Your task to perform on an android device: turn on the 24-hour format for clock Image 0: 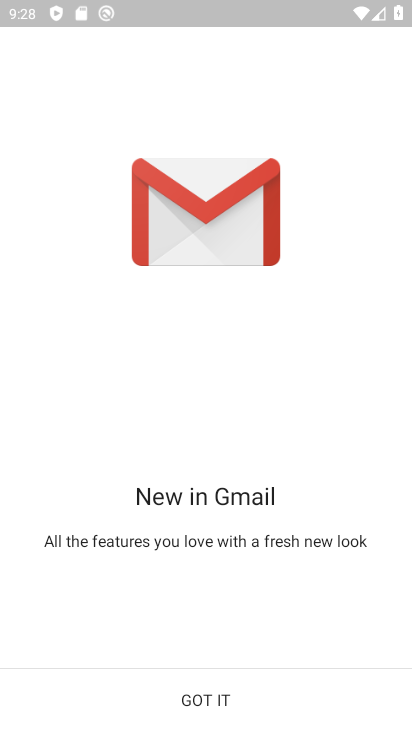
Step 0: press home button
Your task to perform on an android device: turn on the 24-hour format for clock Image 1: 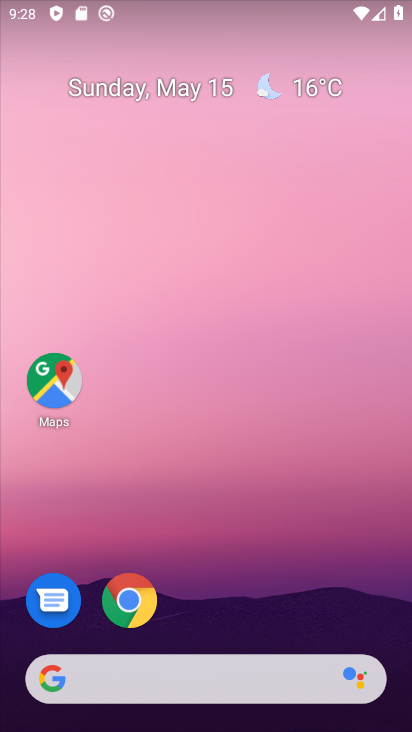
Step 1: drag from (200, 620) to (118, 291)
Your task to perform on an android device: turn on the 24-hour format for clock Image 2: 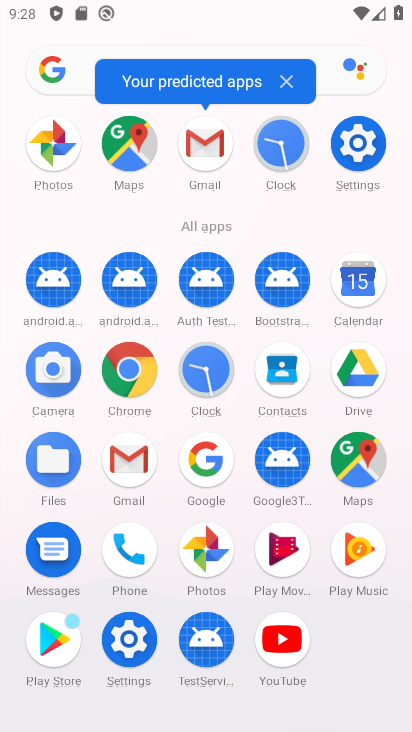
Step 2: click (285, 141)
Your task to perform on an android device: turn on the 24-hour format for clock Image 3: 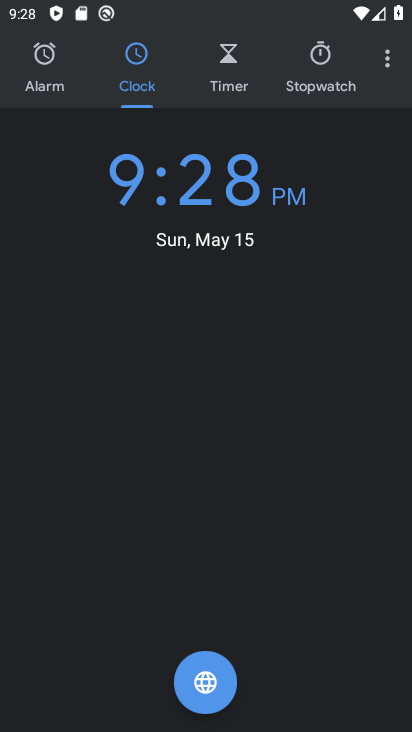
Step 3: click (380, 50)
Your task to perform on an android device: turn on the 24-hour format for clock Image 4: 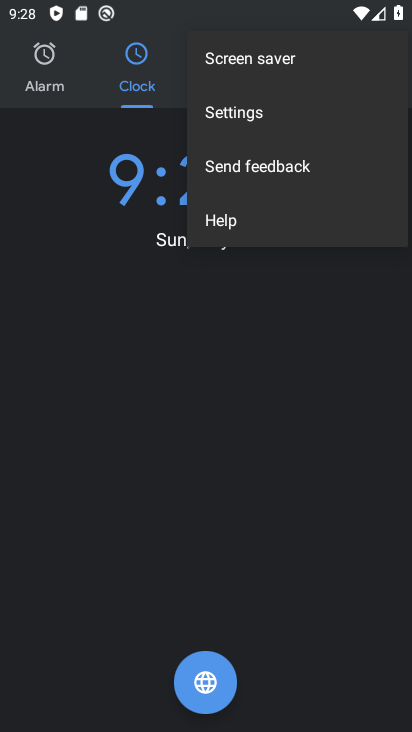
Step 4: click (327, 118)
Your task to perform on an android device: turn on the 24-hour format for clock Image 5: 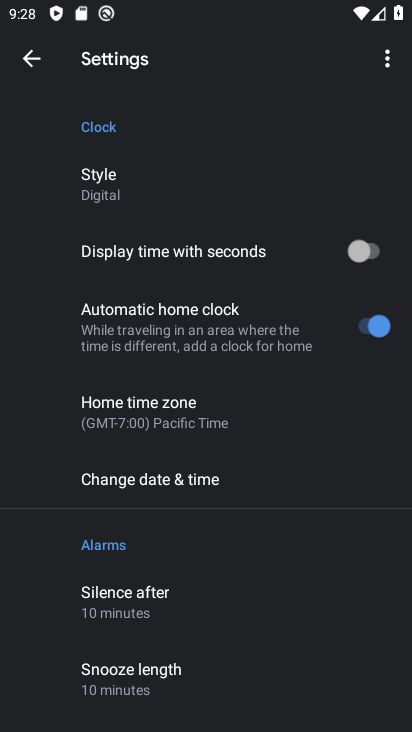
Step 5: click (288, 498)
Your task to perform on an android device: turn on the 24-hour format for clock Image 6: 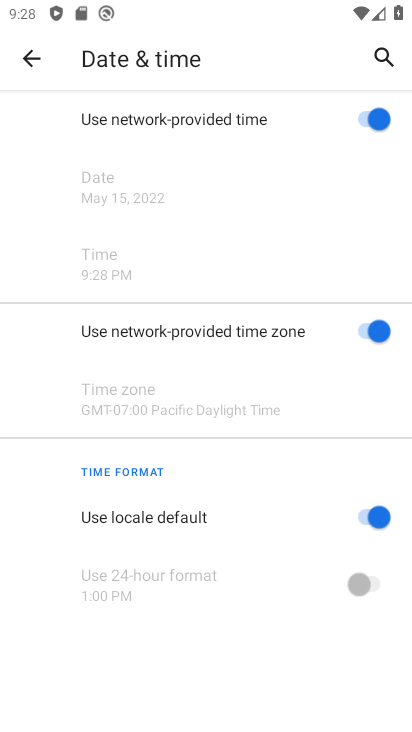
Step 6: click (288, 498)
Your task to perform on an android device: turn on the 24-hour format for clock Image 7: 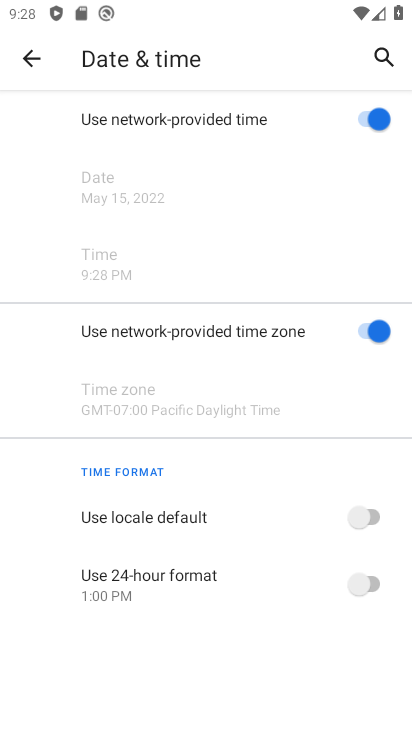
Step 7: click (313, 602)
Your task to perform on an android device: turn on the 24-hour format for clock Image 8: 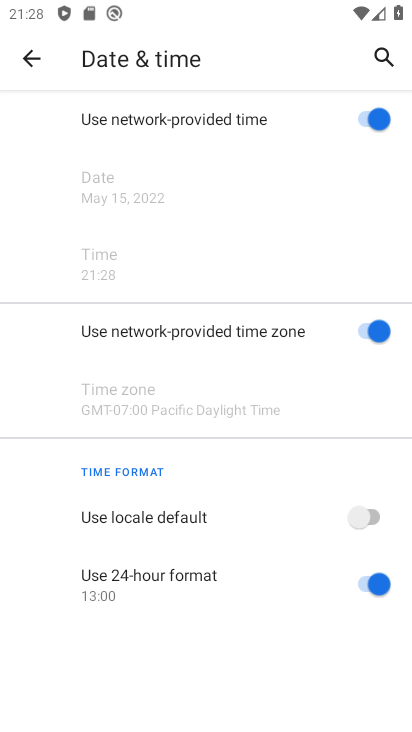
Step 8: task complete